Your task to perform on an android device: Search for the most popular coffee table on Crate & Barrel Image 0: 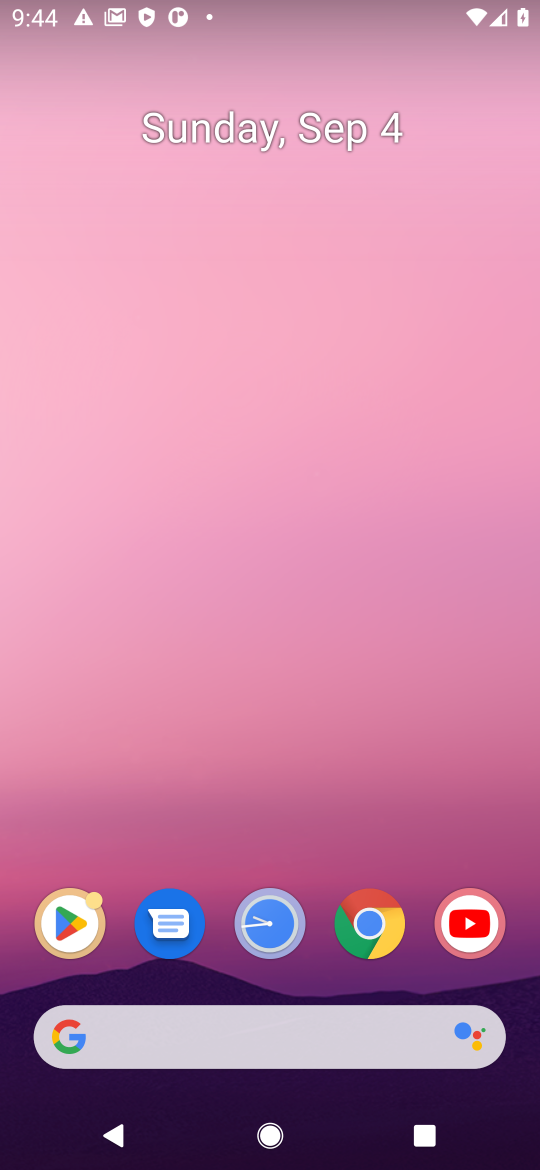
Step 0: press home button
Your task to perform on an android device: Search for the most popular coffee table on Crate & Barrel Image 1: 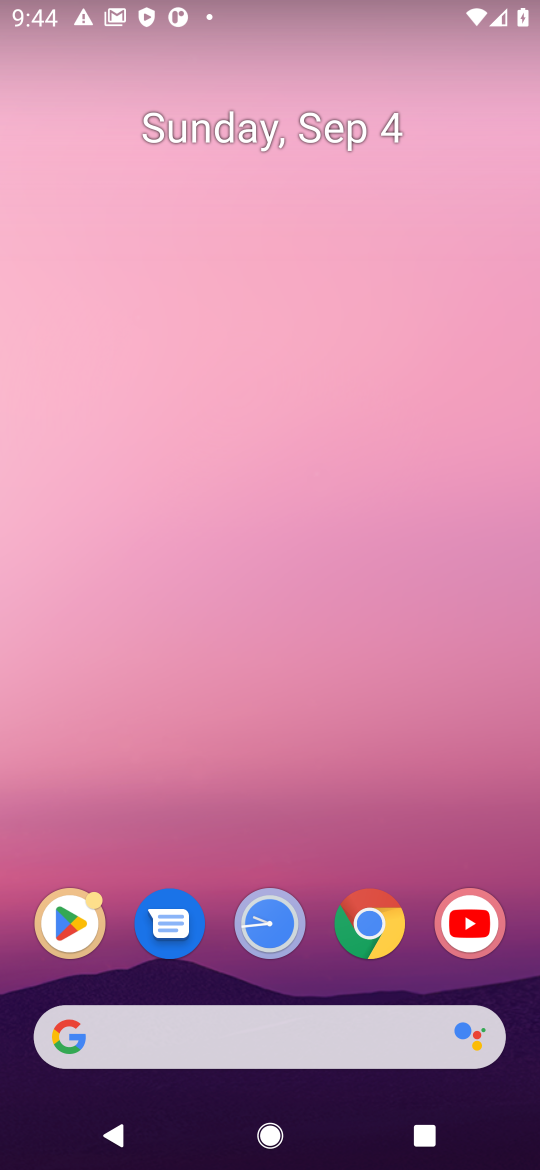
Step 1: click (386, 1035)
Your task to perform on an android device: Search for the most popular coffee table on Crate & Barrel Image 2: 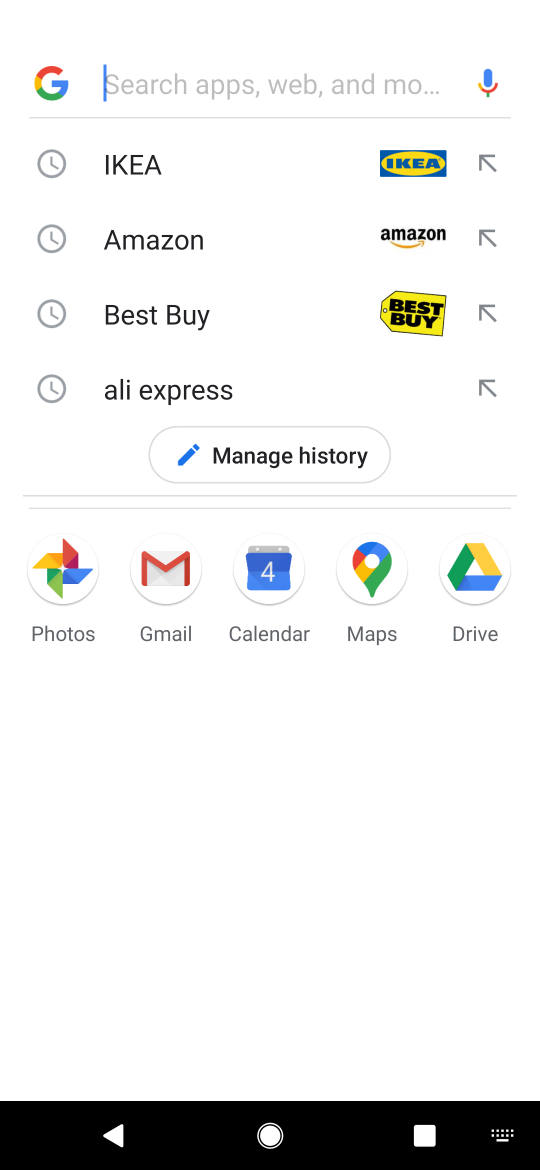
Step 2: press enter
Your task to perform on an android device: Search for the most popular coffee table on Crate & Barrel Image 3: 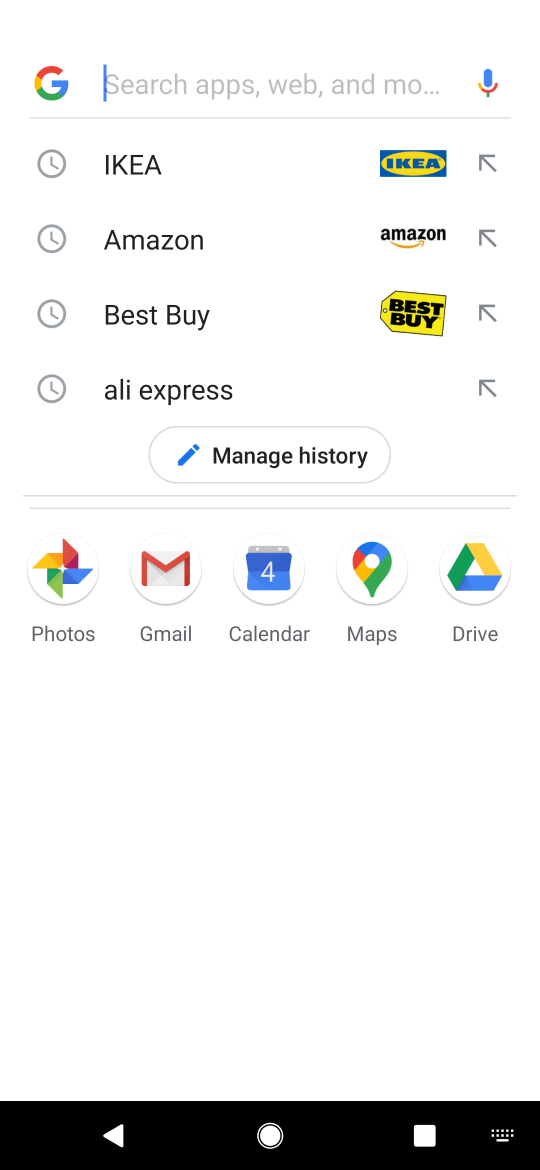
Step 3: type "crate barrel"
Your task to perform on an android device: Search for the most popular coffee table on Crate & Barrel Image 4: 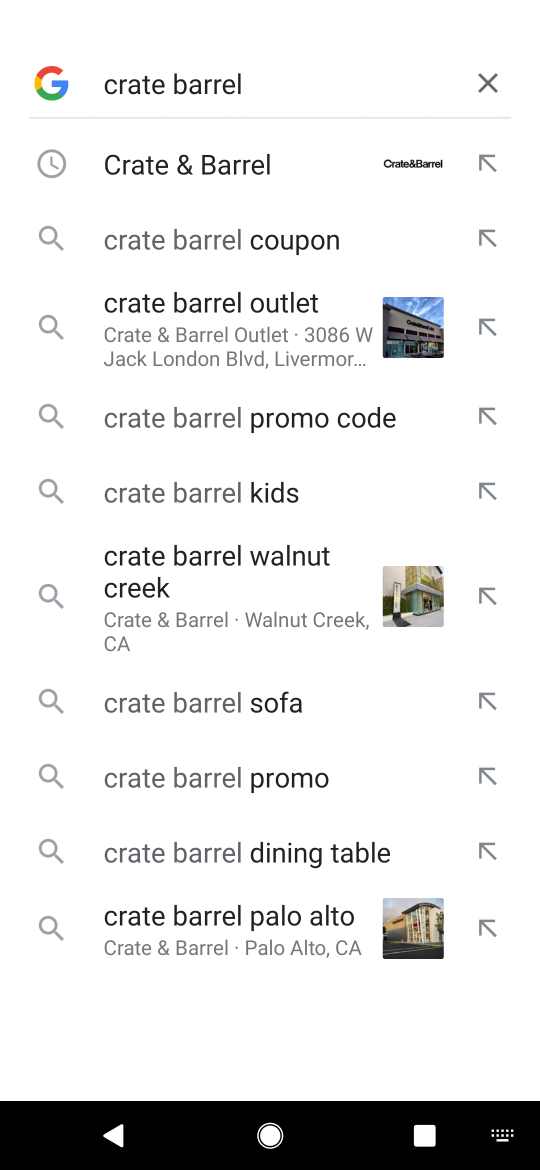
Step 4: click (216, 167)
Your task to perform on an android device: Search for the most popular coffee table on Crate & Barrel Image 5: 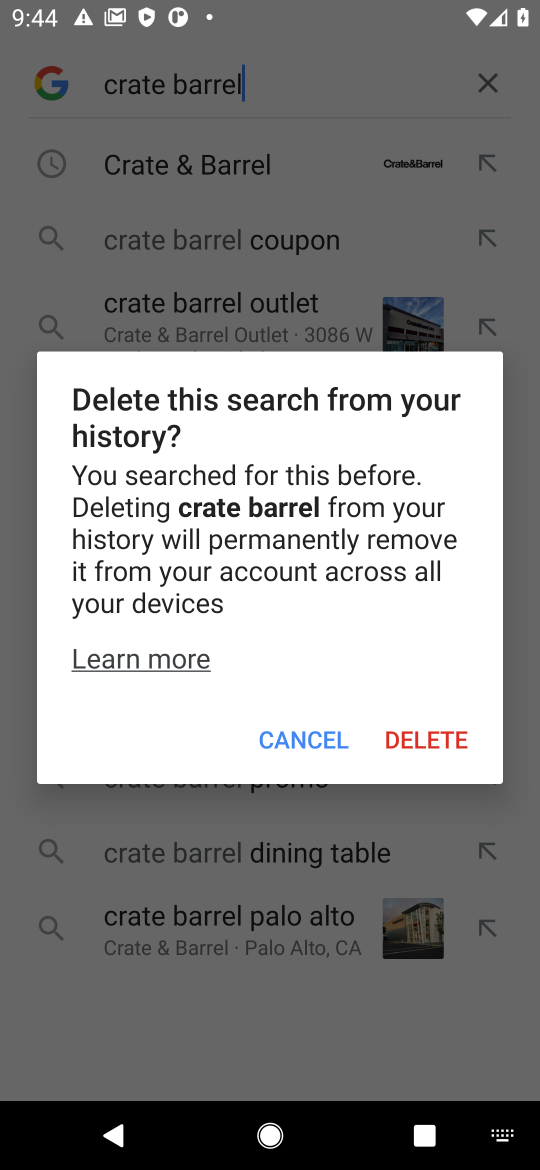
Step 5: click (311, 744)
Your task to perform on an android device: Search for the most popular coffee table on Crate & Barrel Image 6: 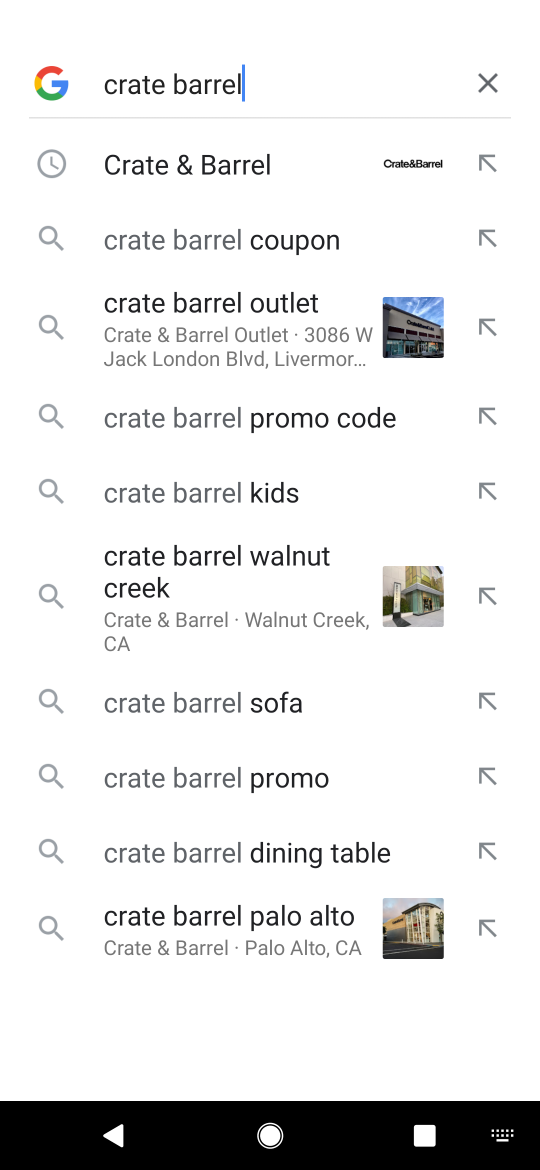
Step 6: click (210, 164)
Your task to perform on an android device: Search for the most popular coffee table on Crate & Barrel Image 7: 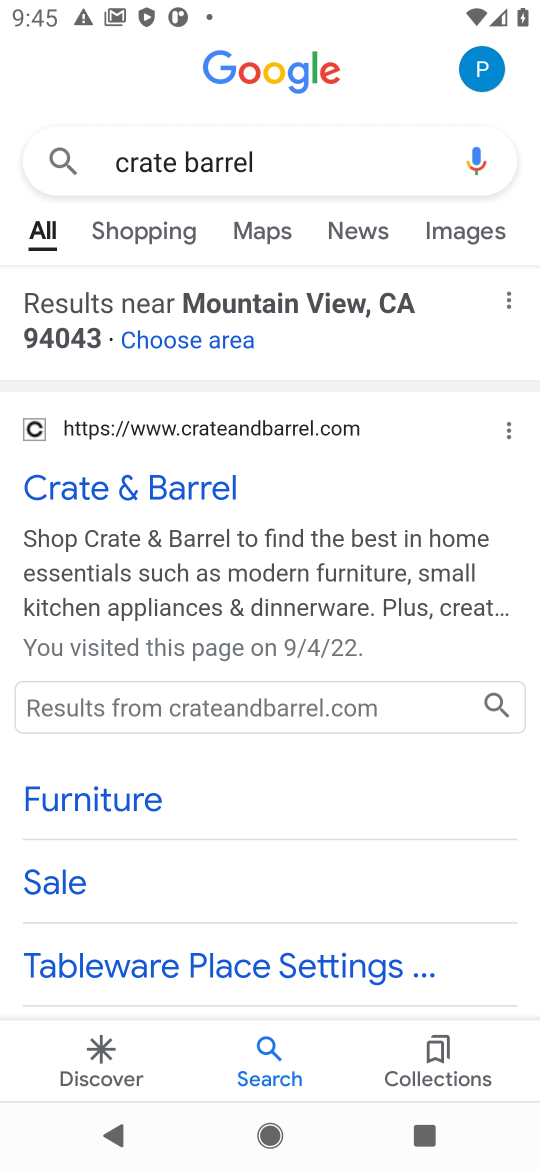
Step 7: click (141, 488)
Your task to perform on an android device: Search for the most popular coffee table on Crate & Barrel Image 8: 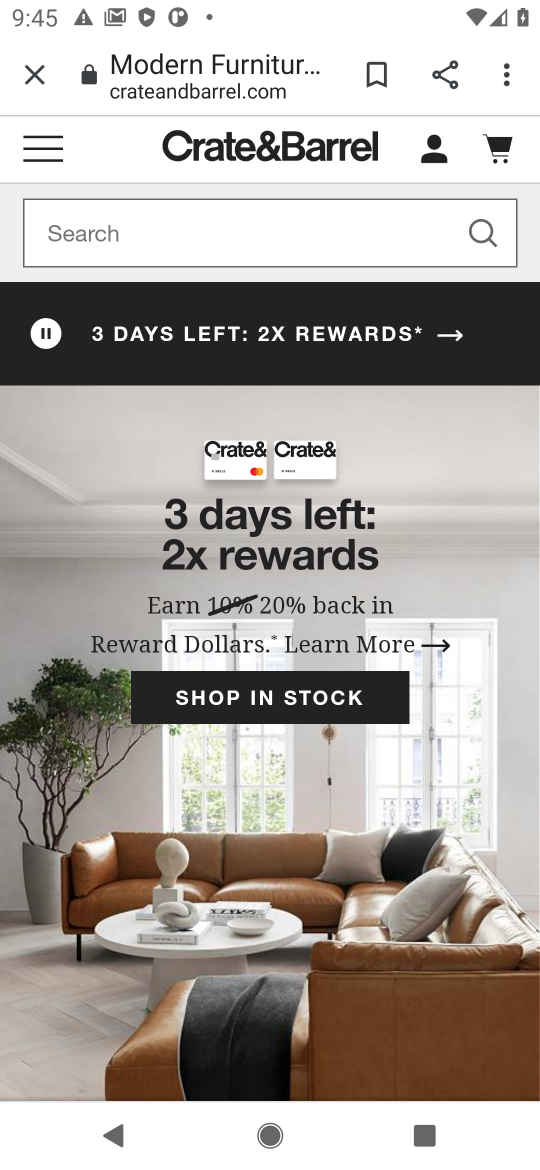
Step 8: click (107, 224)
Your task to perform on an android device: Search for the most popular coffee table on Crate & Barrel Image 9: 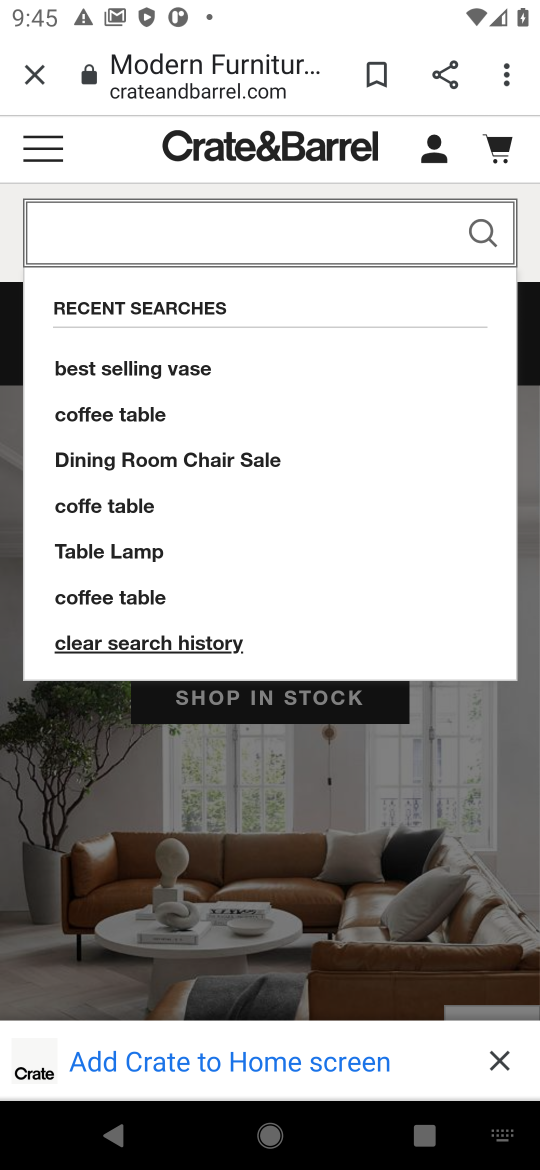
Step 9: type "most popular coffee table"
Your task to perform on an android device: Search for the most popular coffee table on Crate & Barrel Image 10: 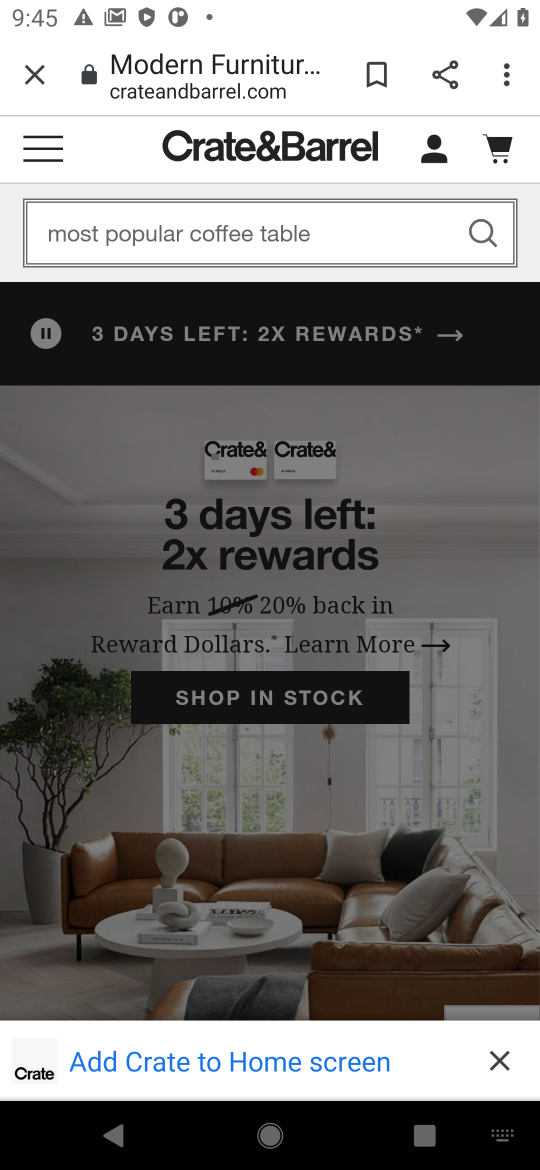
Step 10: press enter
Your task to perform on an android device: Search for the most popular coffee table on Crate & Barrel Image 11: 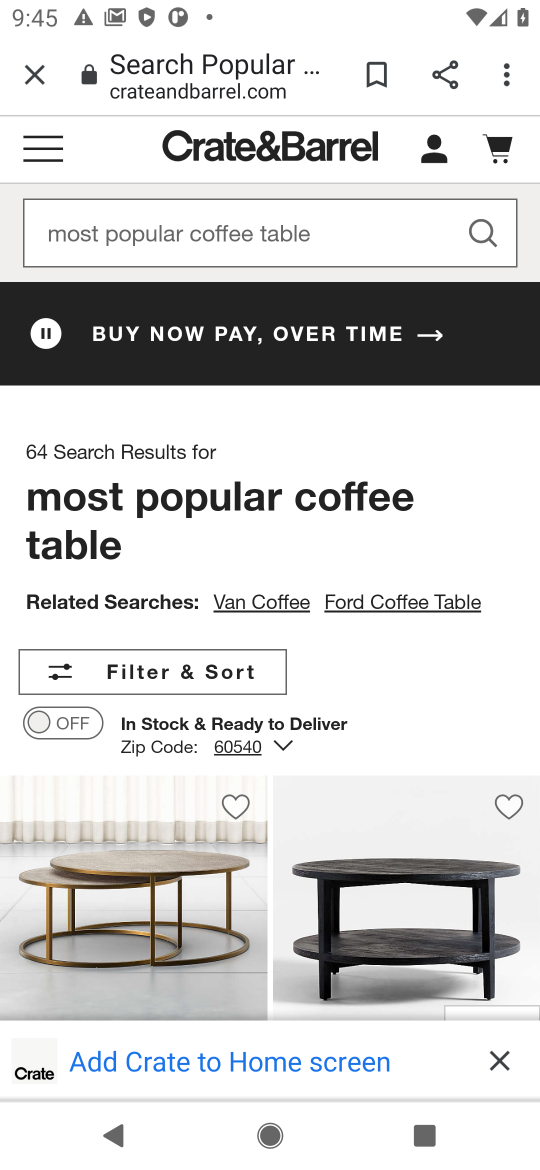
Step 11: task complete